Your task to perform on an android device: empty trash in google photos Image 0: 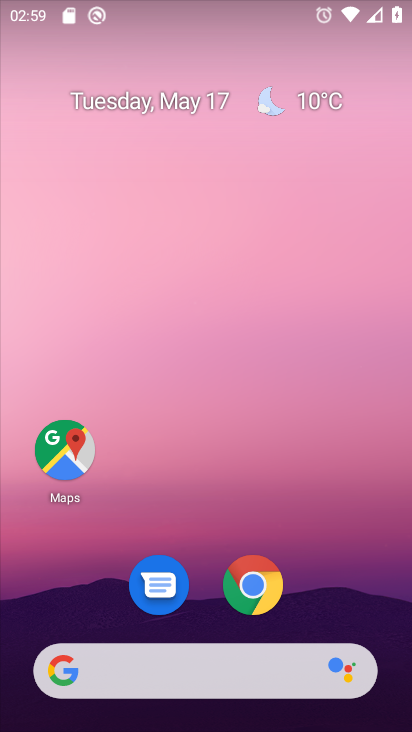
Step 0: drag from (223, 446) to (271, 27)
Your task to perform on an android device: empty trash in google photos Image 1: 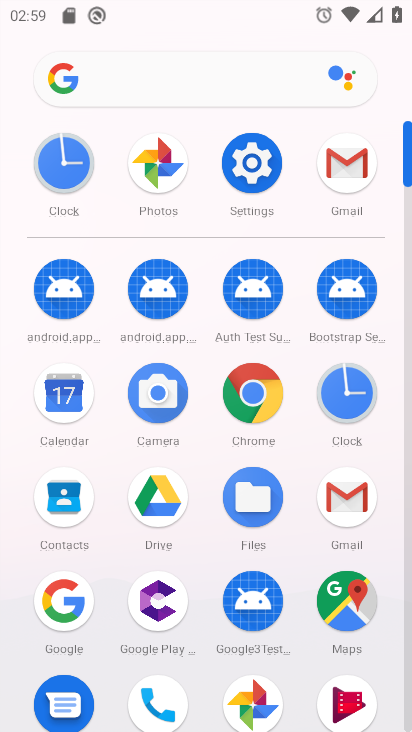
Step 1: click (156, 165)
Your task to perform on an android device: empty trash in google photos Image 2: 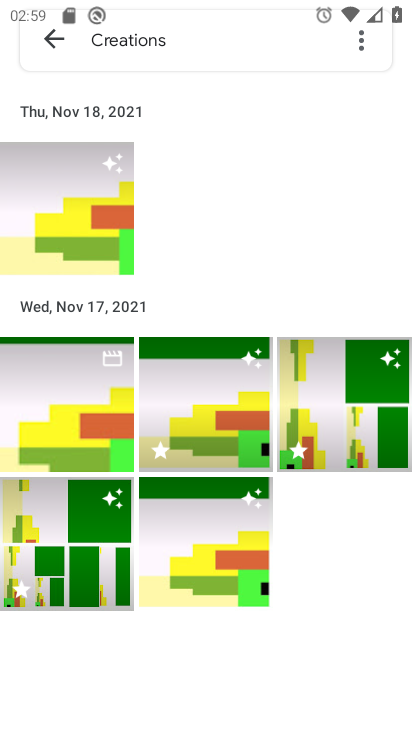
Step 2: click (56, 34)
Your task to perform on an android device: empty trash in google photos Image 3: 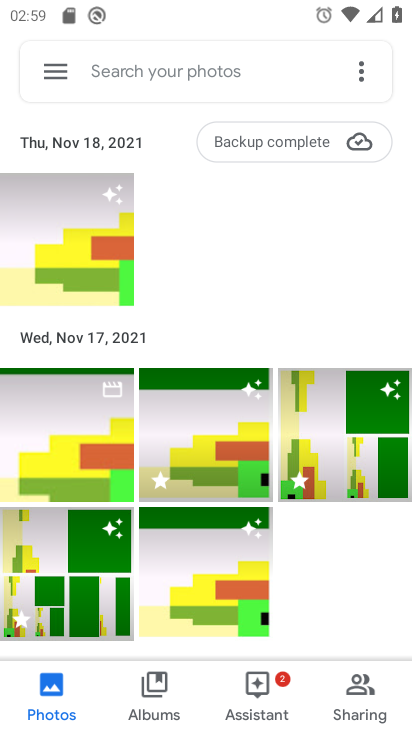
Step 3: click (54, 65)
Your task to perform on an android device: empty trash in google photos Image 4: 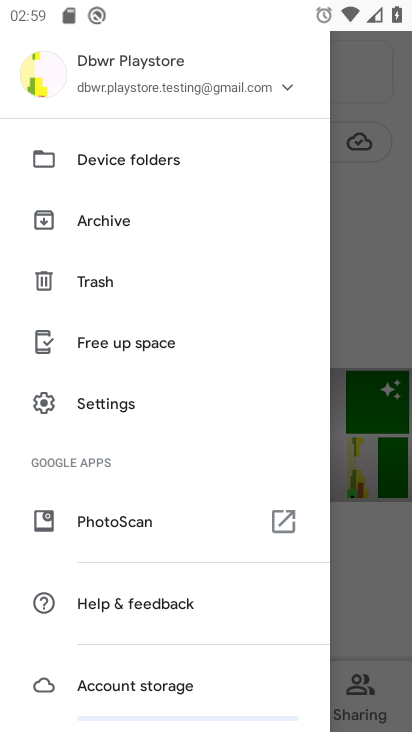
Step 4: click (90, 271)
Your task to perform on an android device: empty trash in google photos Image 5: 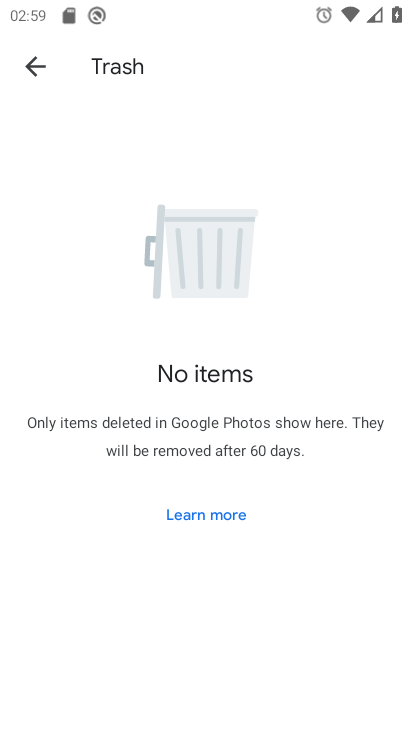
Step 5: task complete